Your task to perform on an android device: Go to Maps Image 0: 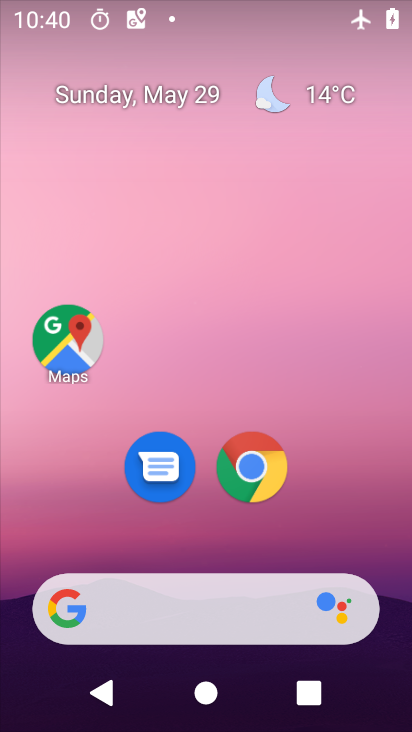
Step 0: click (68, 341)
Your task to perform on an android device: Go to Maps Image 1: 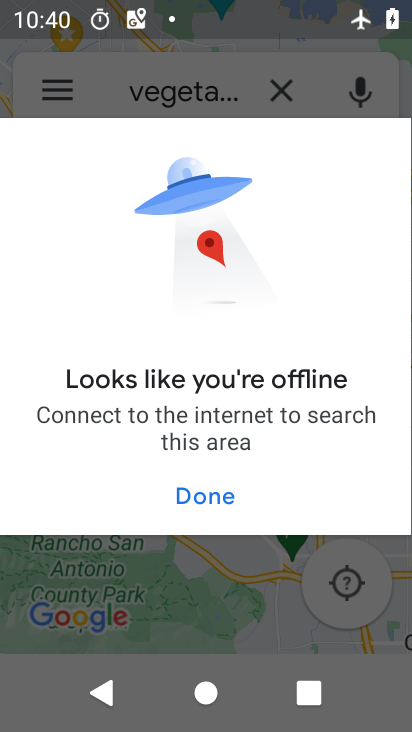
Step 1: task complete